Your task to perform on an android device: toggle show notifications on the lock screen Image 0: 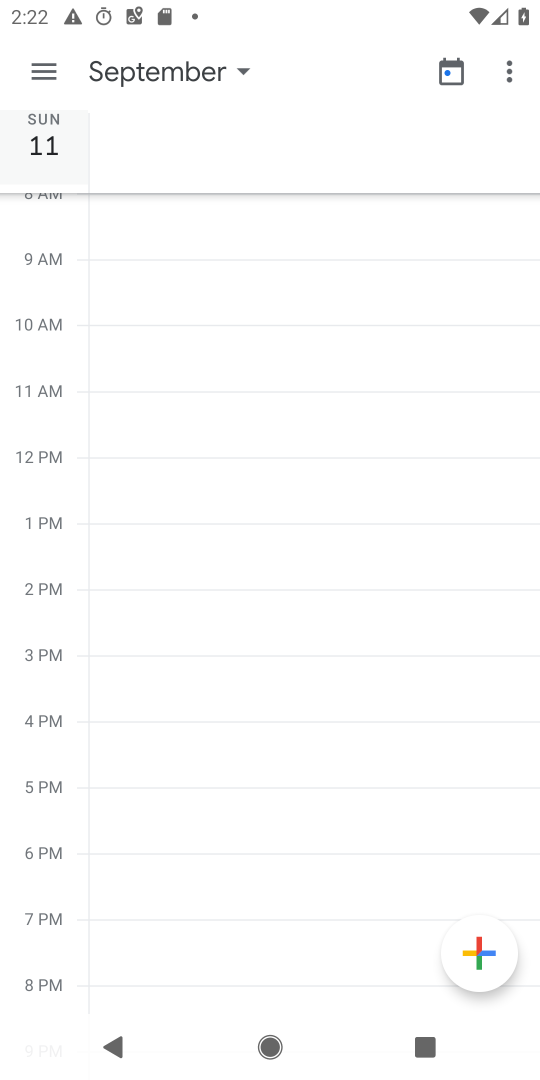
Step 0: press home button
Your task to perform on an android device: toggle show notifications on the lock screen Image 1: 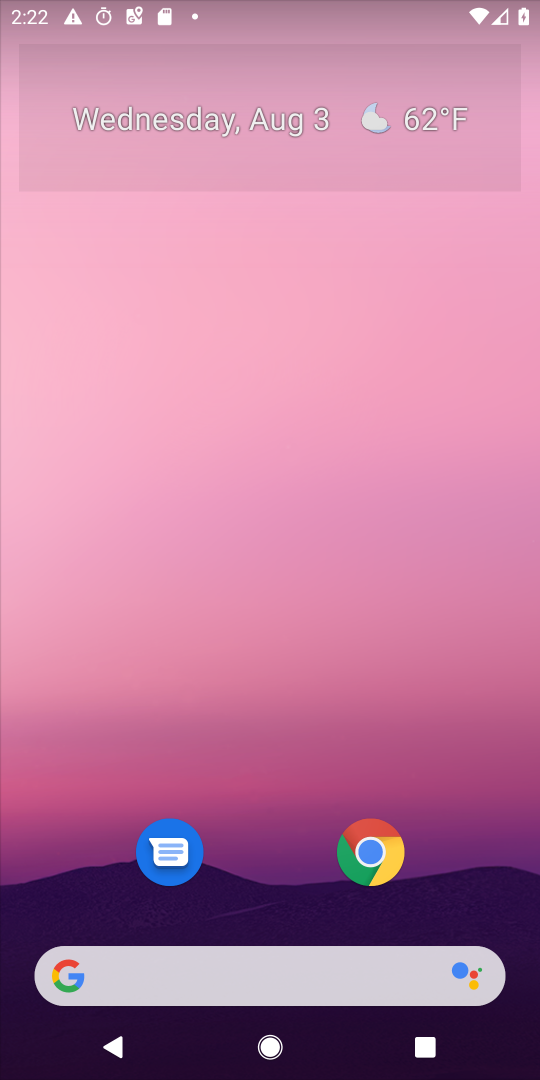
Step 1: click (258, 37)
Your task to perform on an android device: toggle show notifications on the lock screen Image 2: 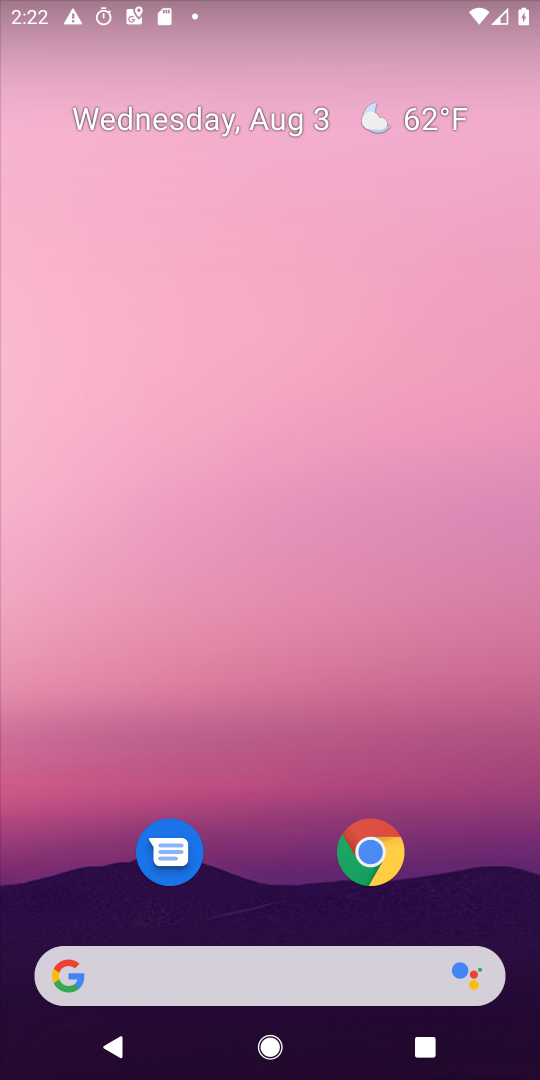
Step 2: drag from (473, 865) to (314, 42)
Your task to perform on an android device: toggle show notifications on the lock screen Image 3: 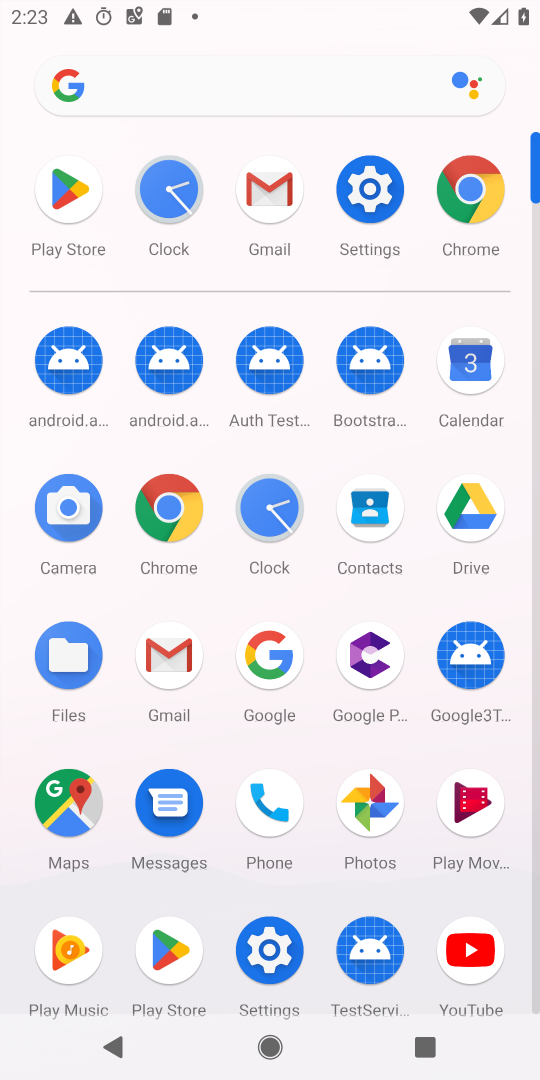
Step 3: click (261, 953)
Your task to perform on an android device: toggle show notifications on the lock screen Image 4: 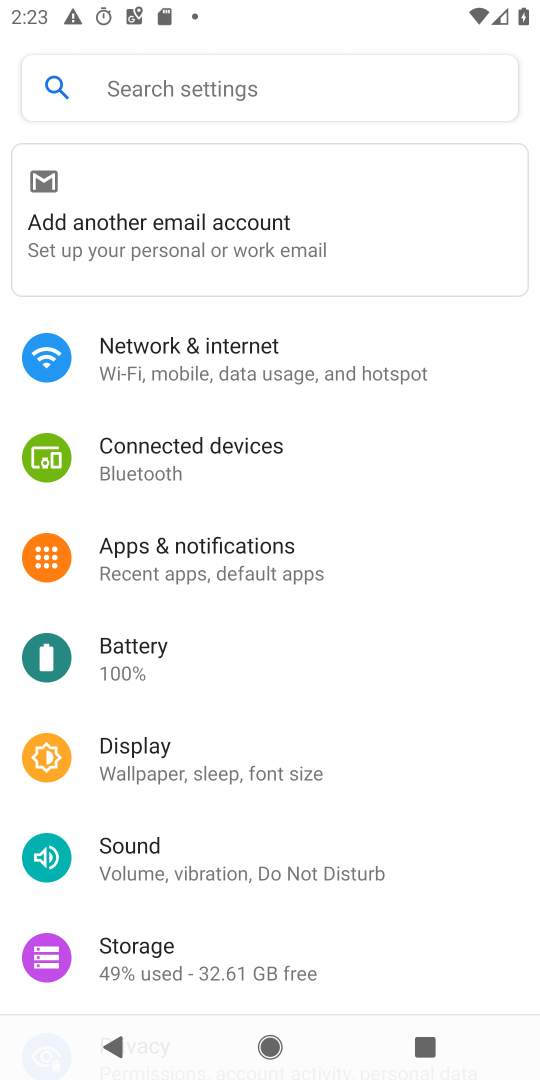
Step 4: click (177, 549)
Your task to perform on an android device: toggle show notifications on the lock screen Image 5: 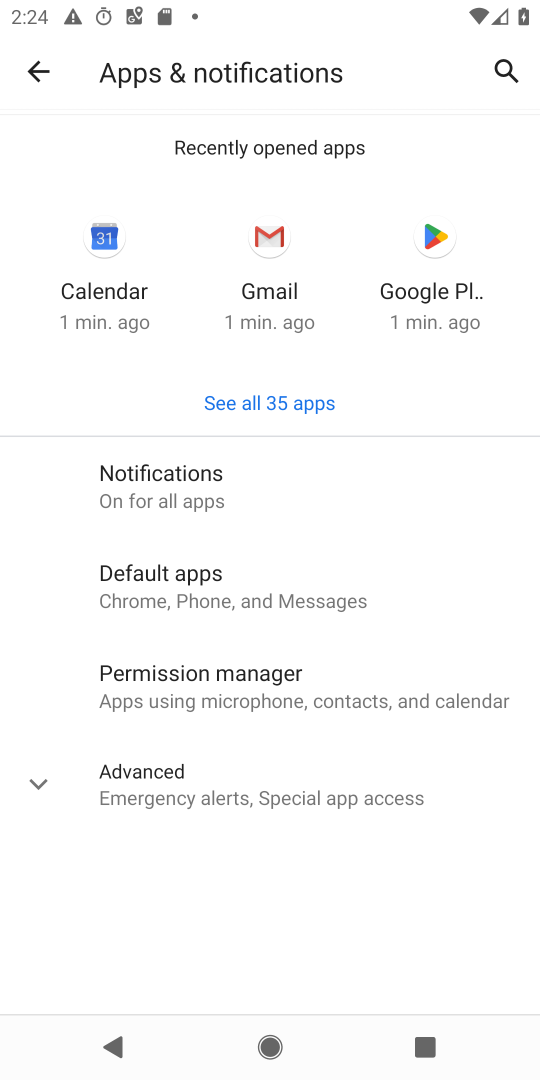
Step 5: click (80, 779)
Your task to perform on an android device: toggle show notifications on the lock screen Image 6: 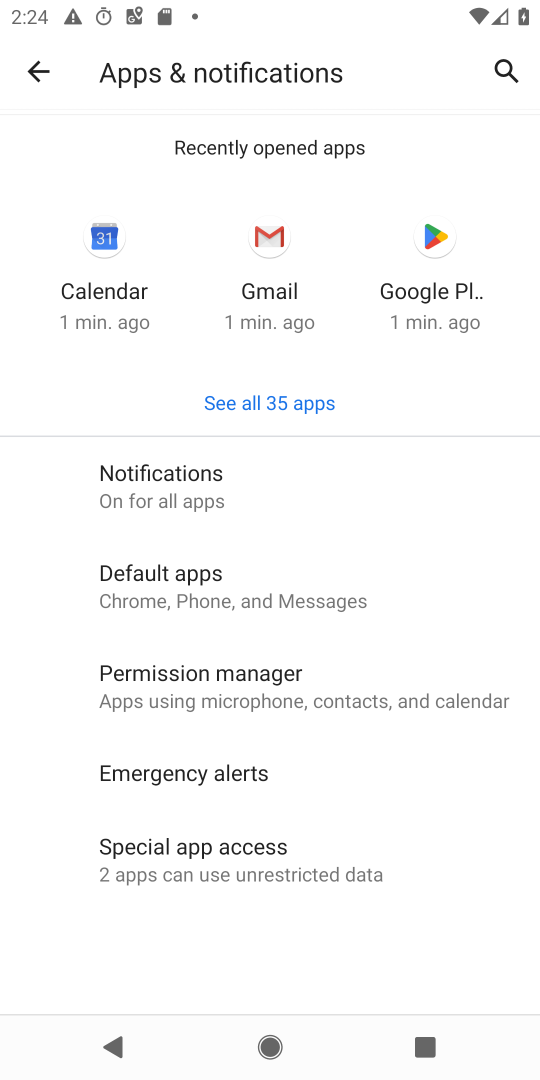
Step 6: click (127, 465)
Your task to perform on an android device: toggle show notifications on the lock screen Image 7: 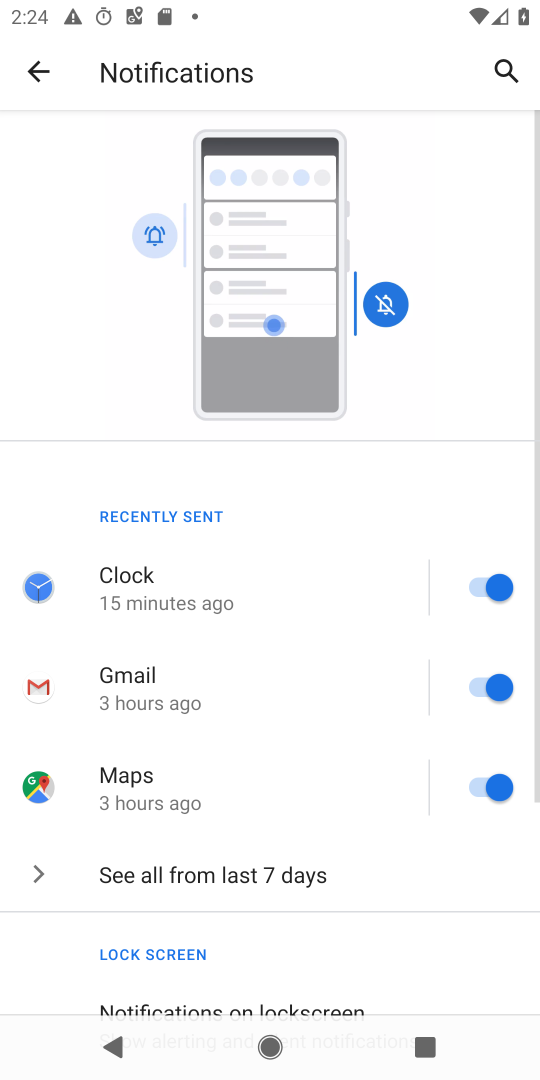
Step 7: drag from (184, 926) to (161, 319)
Your task to perform on an android device: toggle show notifications on the lock screen Image 8: 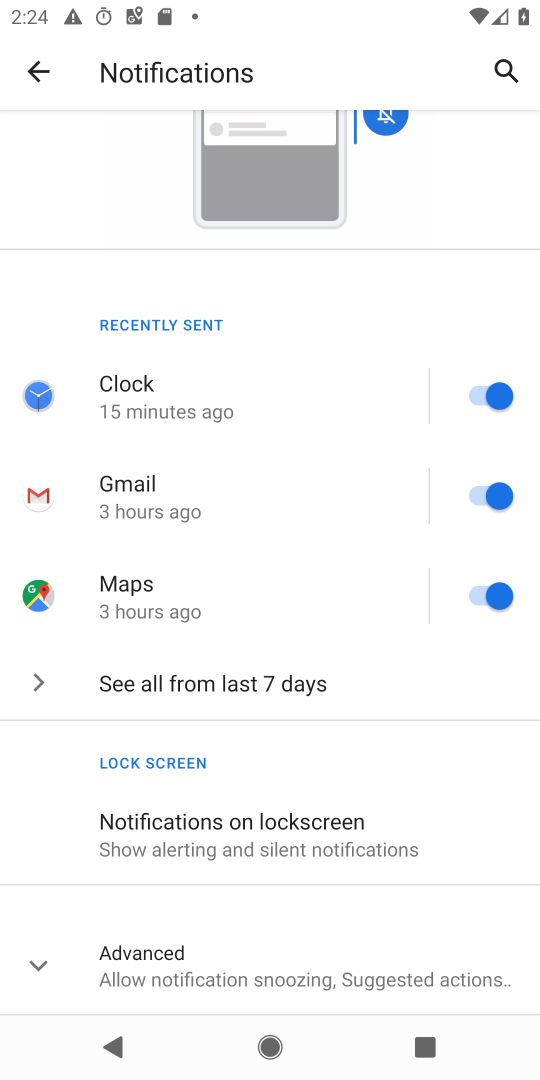
Step 8: click (236, 819)
Your task to perform on an android device: toggle show notifications on the lock screen Image 9: 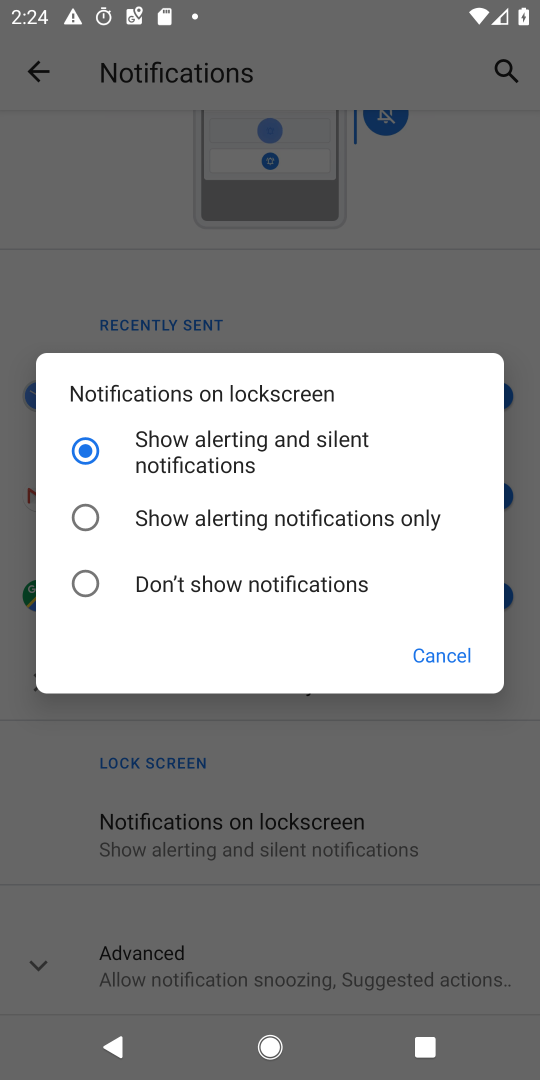
Step 9: click (119, 518)
Your task to perform on an android device: toggle show notifications on the lock screen Image 10: 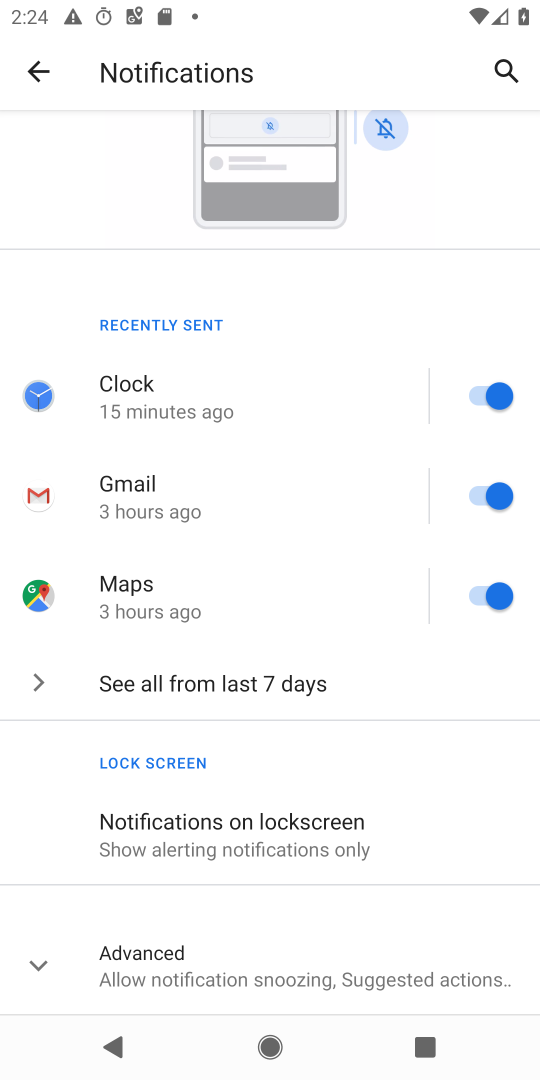
Step 10: task complete